Your task to perform on an android device: What's the weather today? Image 0: 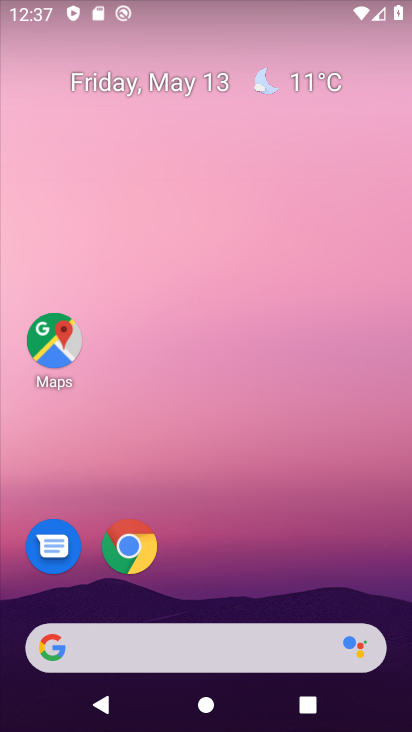
Step 0: drag from (212, 652) to (226, 273)
Your task to perform on an android device: What's the weather today? Image 1: 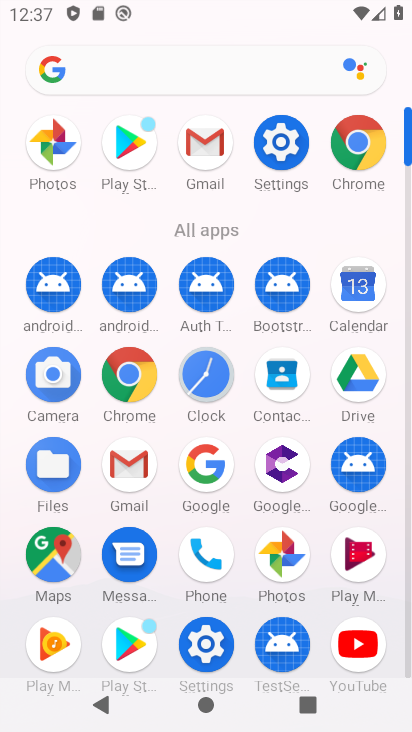
Step 1: click (203, 485)
Your task to perform on an android device: What's the weather today? Image 2: 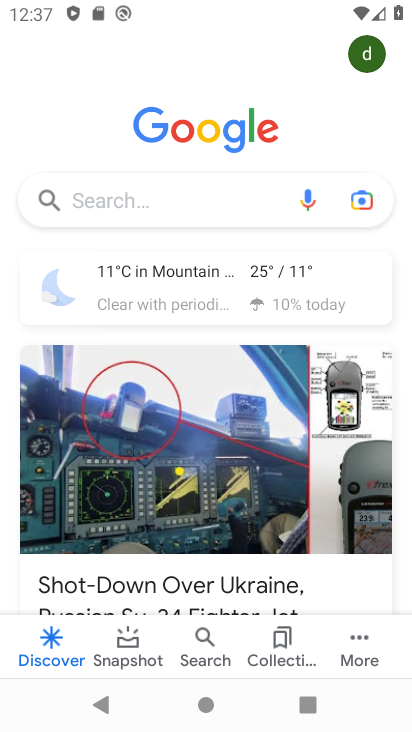
Step 2: click (143, 194)
Your task to perform on an android device: What's the weather today? Image 3: 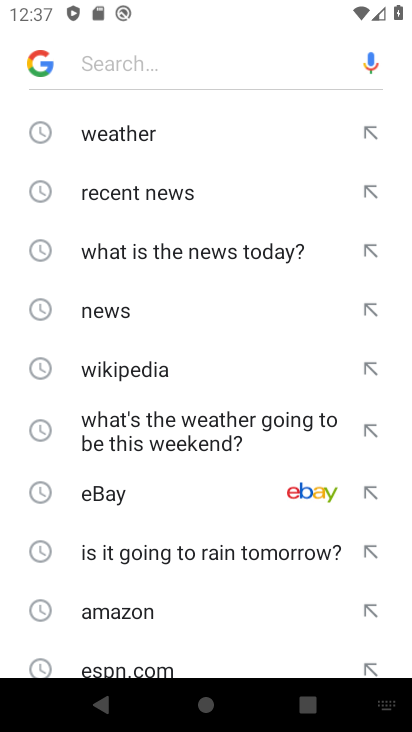
Step 3: click (169, 157)
Your task to perform on an android device: What's the weather today? Image 4: 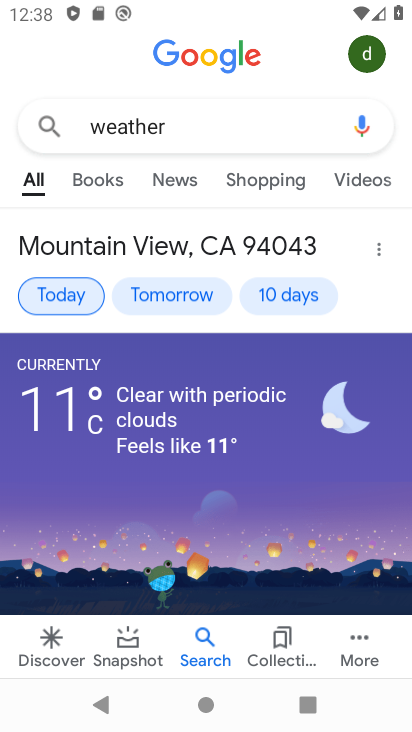
Step 4: task complete